Your task to perform on an android device: Open wifi settings Image 0: 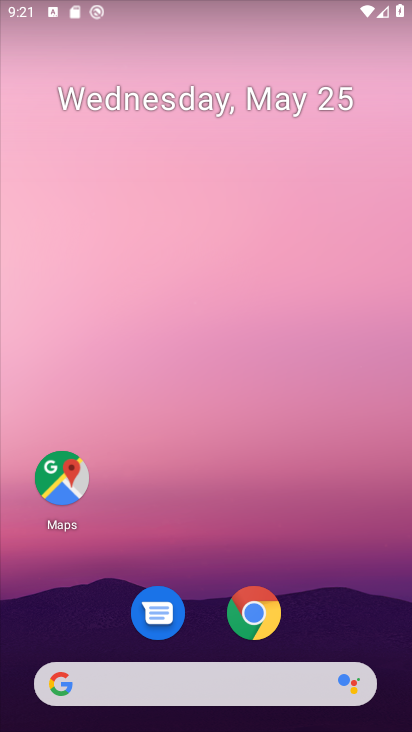
Step 0: drag from (285, 709) to (244, 98)
Your task to perform on an android device: Open wifi settings Image 1: 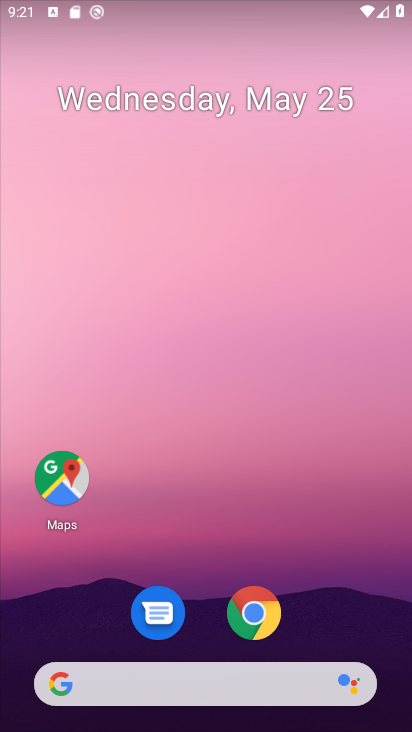
Step 1: drag from (338, 659) to (352, 101)
Your task to perform on an android device: Open wifi settings Image 2: 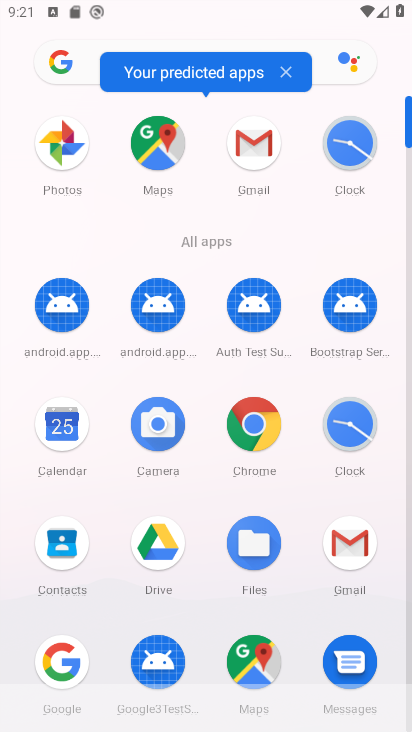
Step 2: drag from (286, 638) to (331, 185)
Your task to perform on an android device: Open wifi settings Image 3: 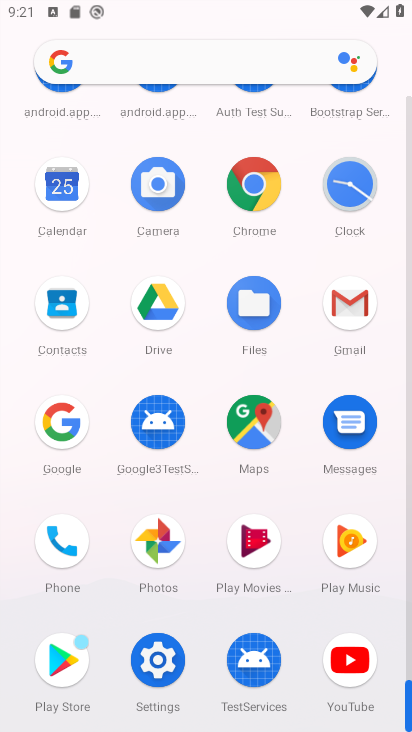
Step 3: click (147, 664)
Your task to perform on an android device: Open wifi settings Image 4: 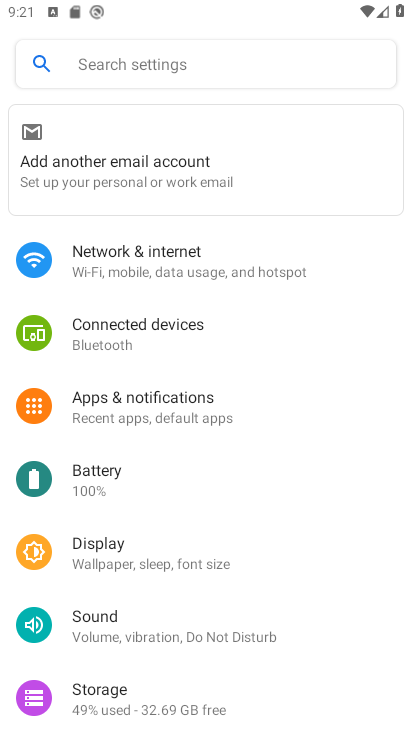
Step 4: click (215, 258)
Your task to perform on an android device: Open wifi settings Image 5: 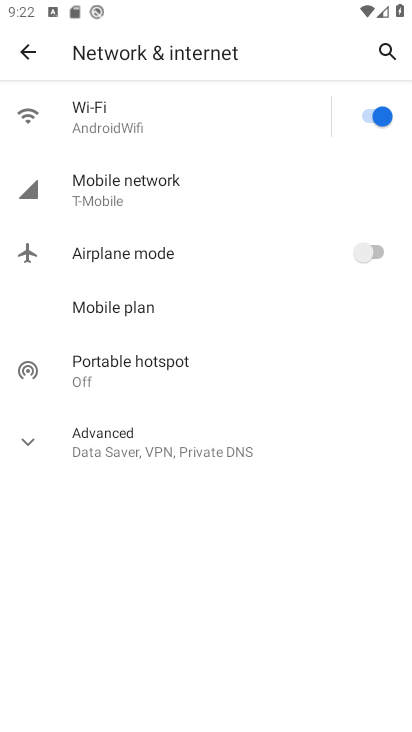
Step 5: click (131, 95)
Your task to perform on an android device: Open wifi settings Image 6: 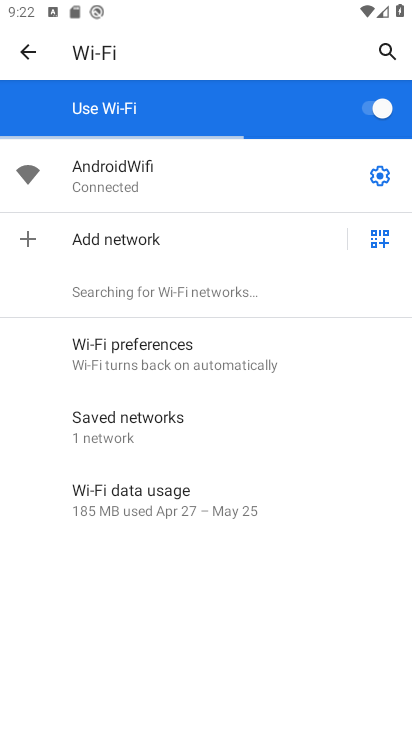
Step 6: task complete